Your task to perform on an android device: Go to Google maps Image 0: 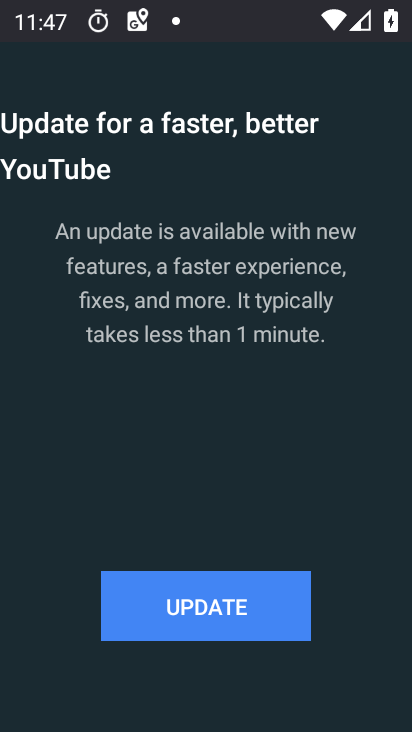
Step 0: click (224, 600)
Your task to perform on an android device: Go to Google maps Image 1: 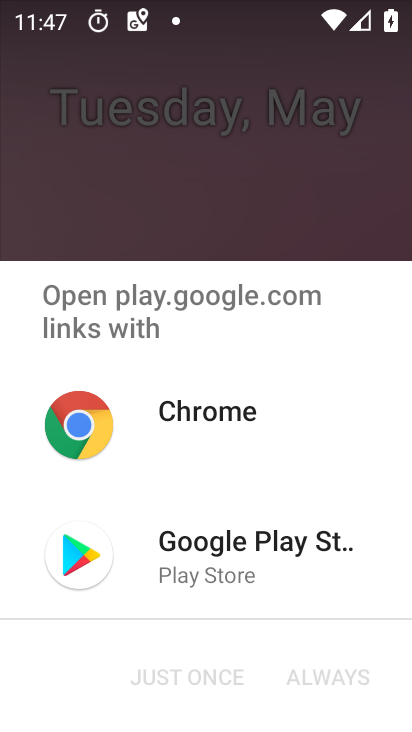
Step 1: click (238, 549)
Your task to perform on an android device: Go to Google maps Image 2: 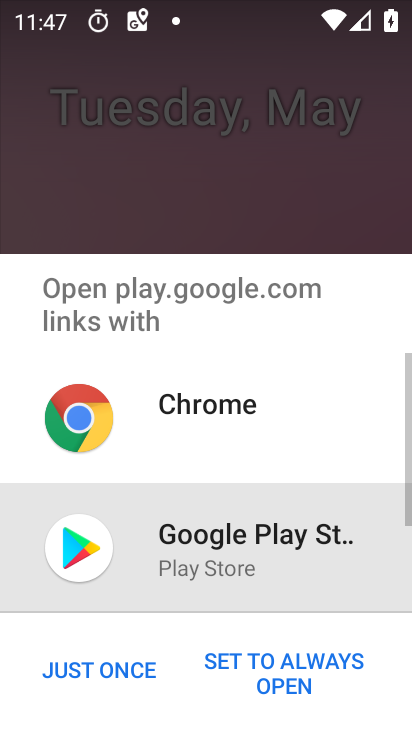
Step 2: click (128, 673)
Your task to perform on an android device: Go to Google maps Image 3: 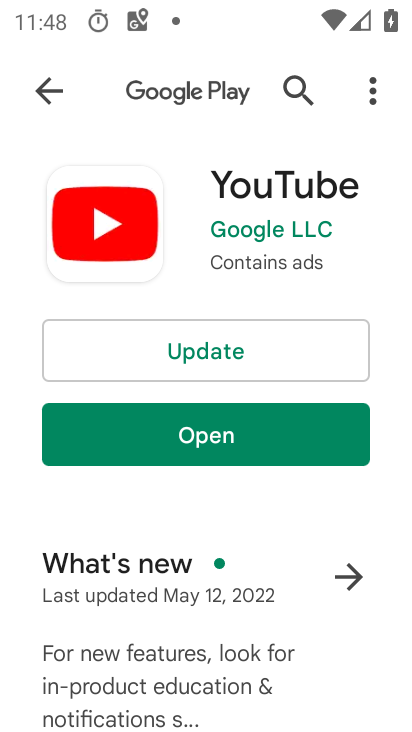
Step 3: press home button
Your task to perform on an android device: Go to Google maps Image 4: 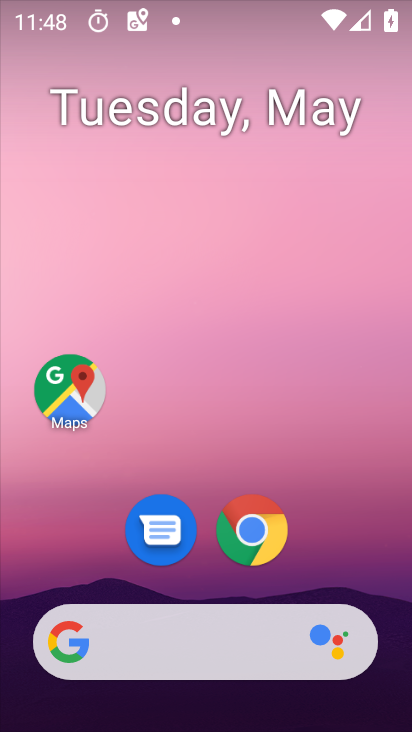
Step 4: drag from (151, 655) to (358, 13)
Your task to perform on an android device: Go to Google maps Image 5: 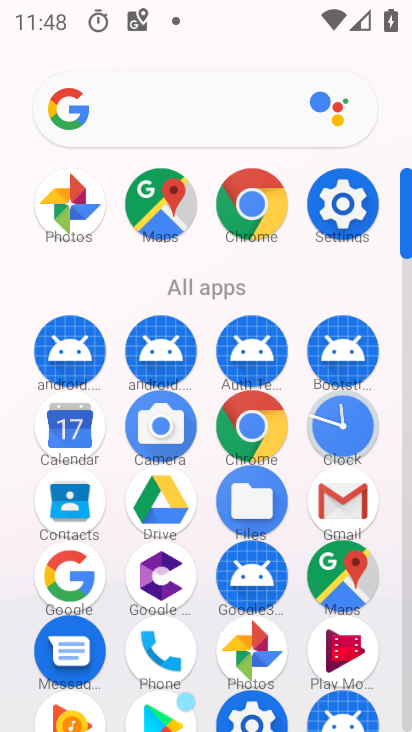
Step 5: click (322, 576)
Your task to perform on an android device: Go to Google maps Image 6: 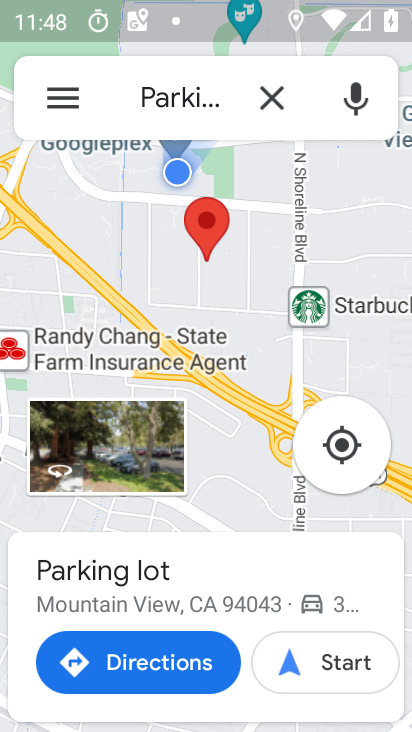
Step 6: task complete